Your task to perform on an android device: Open Chrome and go to the settings page Image 0: 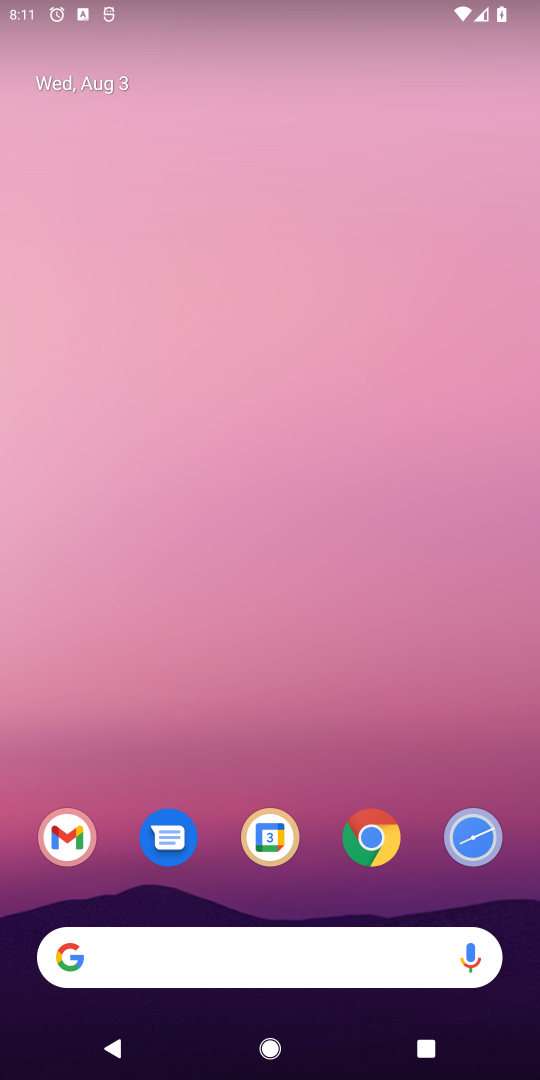
Step 0: press home button
Your task to perform on an android device: Open Chrome and go to the settings page Image 1: 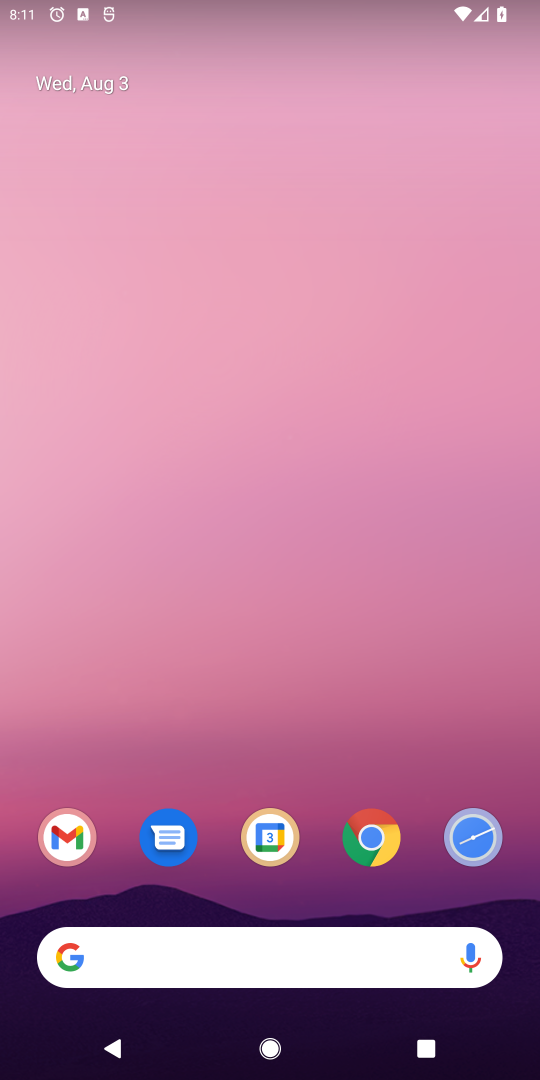
Step 1: click (369, 837)
Your task to perform on an android device: Open Chrome and go to the settings page Image 2: 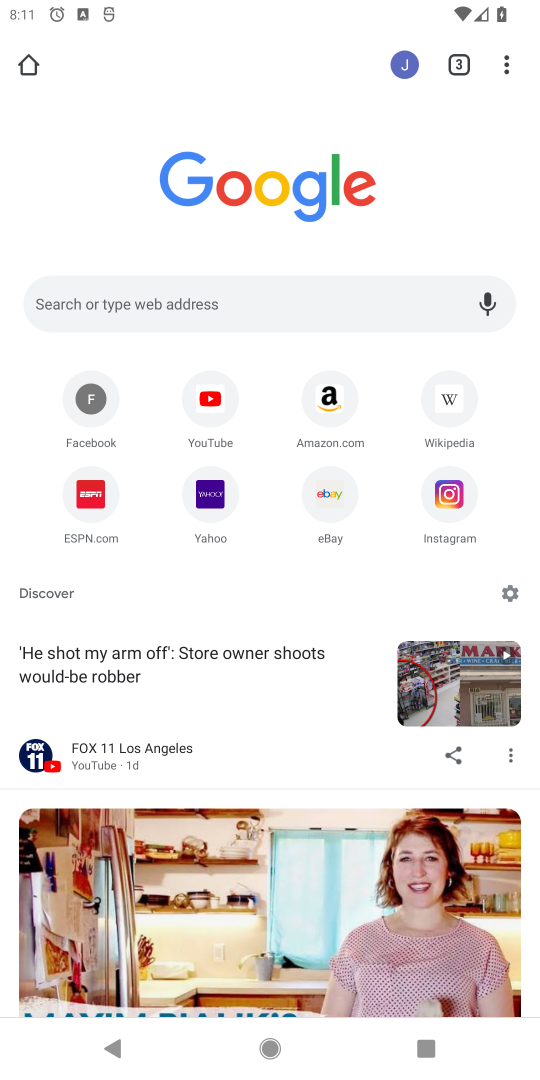
Step 2: task complete